Your task to perform on an android device: Open calendar and show me the first week of next month Image 0: 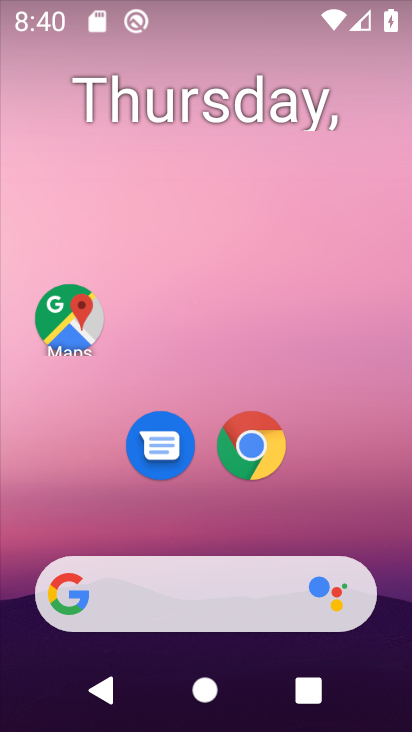
Step 0: drag from (355, 424) to (131, 118)
Your task to perform on an android device: Open calendar and show me the first week of next month Image 1: 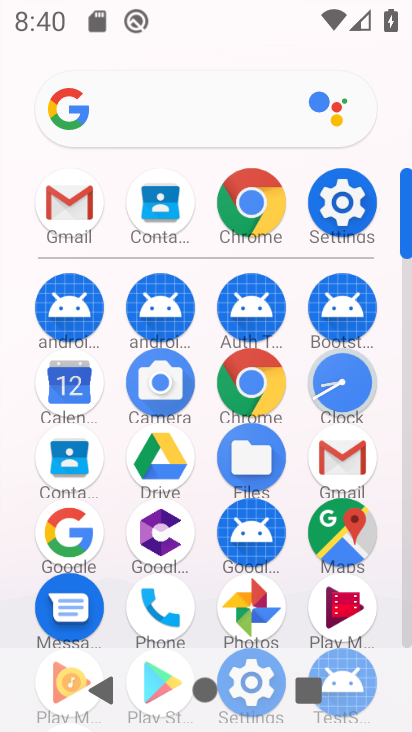
Step 1: click (79, 372)
Your task to perform on an android device: Open calendar and show me the first week of next month Image 2: 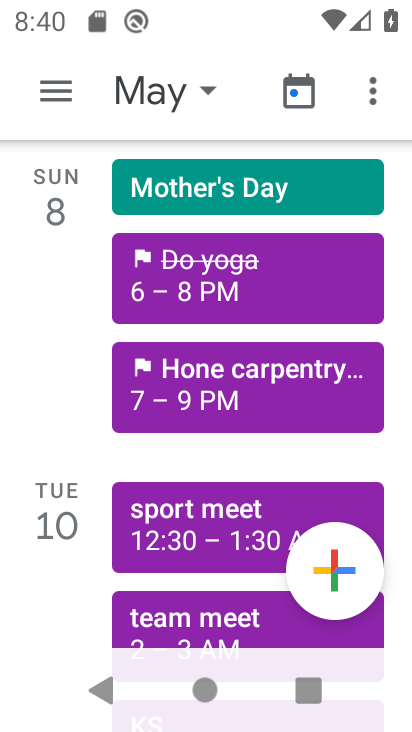
Step 2: click (171, 88)
Your task to perform on an android device: Open calendar and show me the first week of next month Image 3: 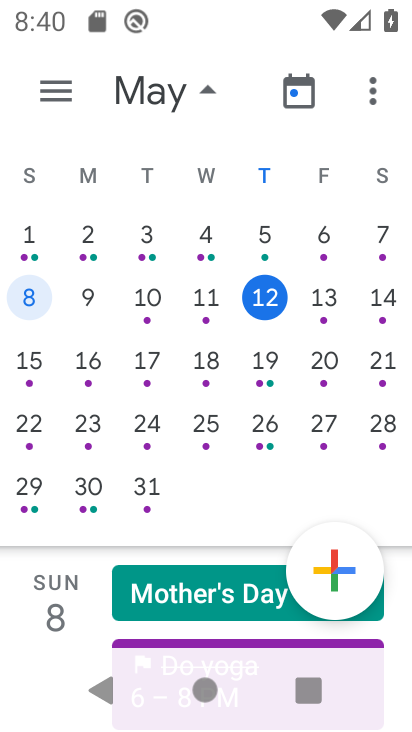
Step 3: drag from (381, 325) to (0, 367)
Your task to perform on an android device: Open calendar and show me the first week of next month Image 4: 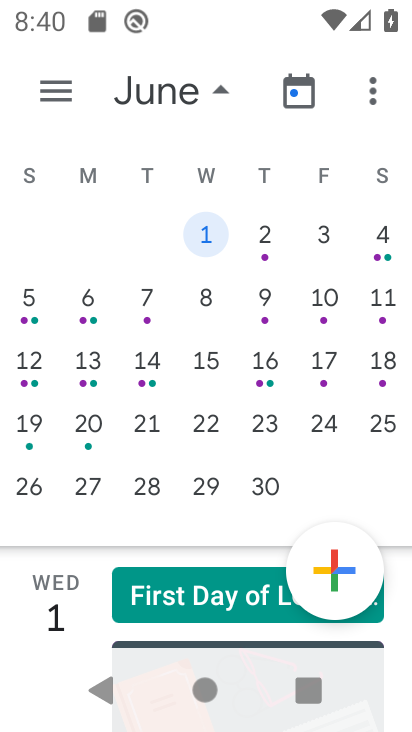
Step 4: click (64, 90)
Your task to perform on an android device: Open calendar and show me the first week of next month Image 5: 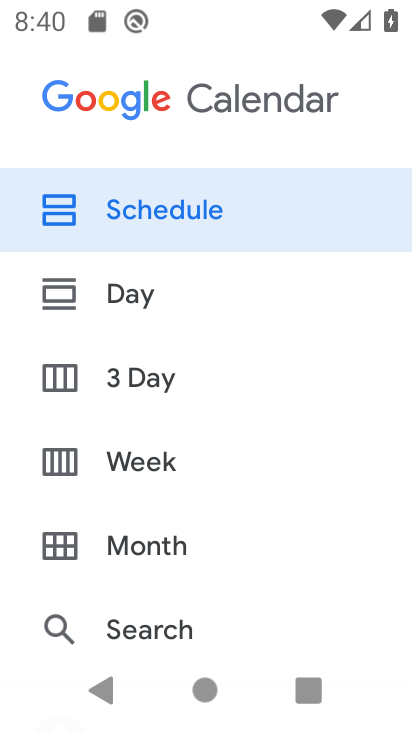
Step 5: click (147, 464)
Your task to perform on an android device: Open calendar and show me the first week of next month Image 6: 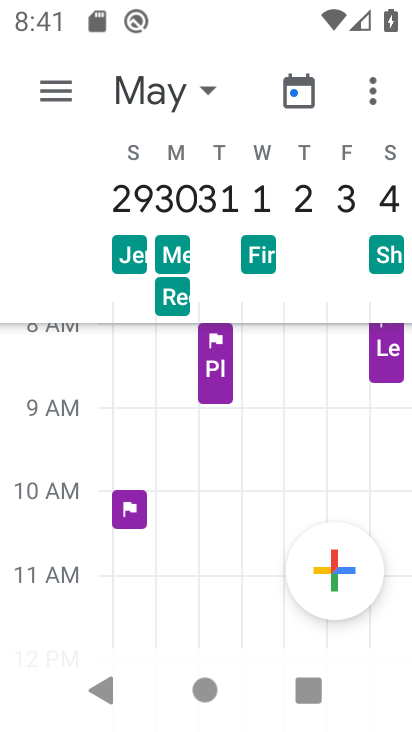
Step 6: task complete